Your task to perform on an android device: Go to network settings Image 0: 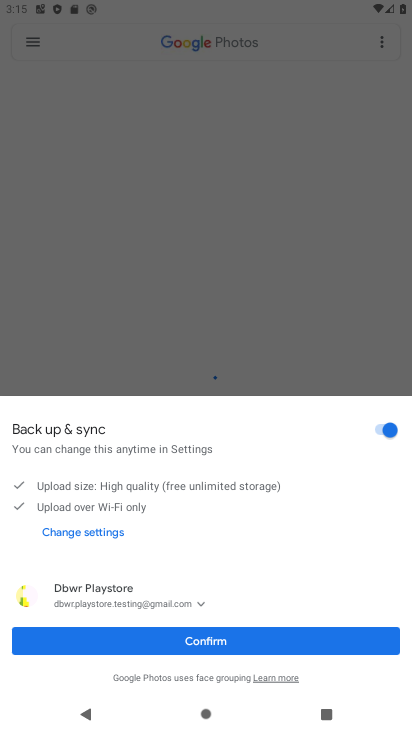
Step 0: click (312, 646)
Your task to perform on an android device: Go to network settings Image 1: 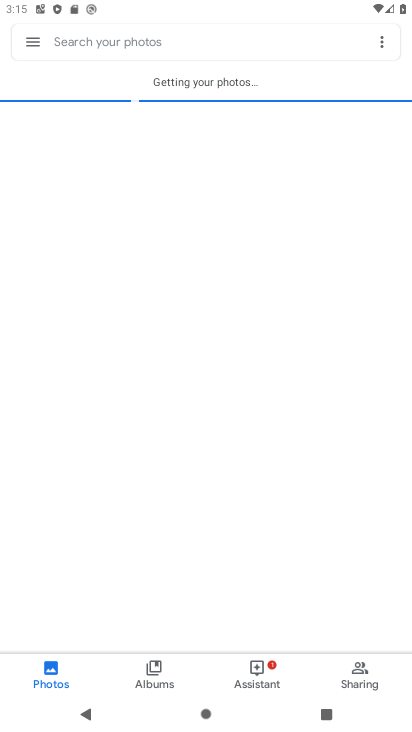
Step 1: press home button
Your task to perform on an android device: Go to network settings Image 2: 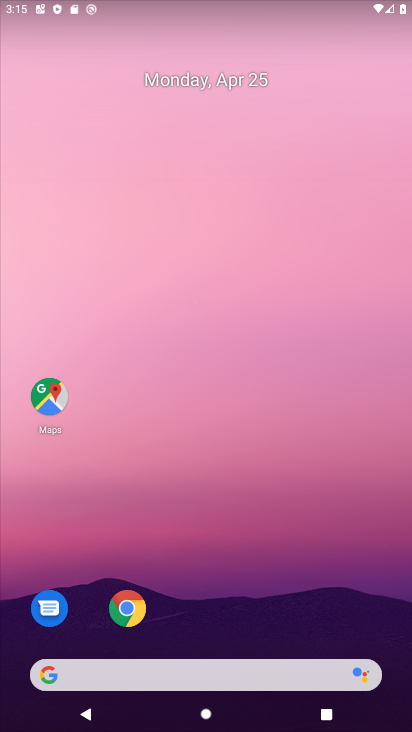
Step 2: drag from (212, 620) to (280, 171)
Your task to perform on an android device: Go to network settings Image 3: 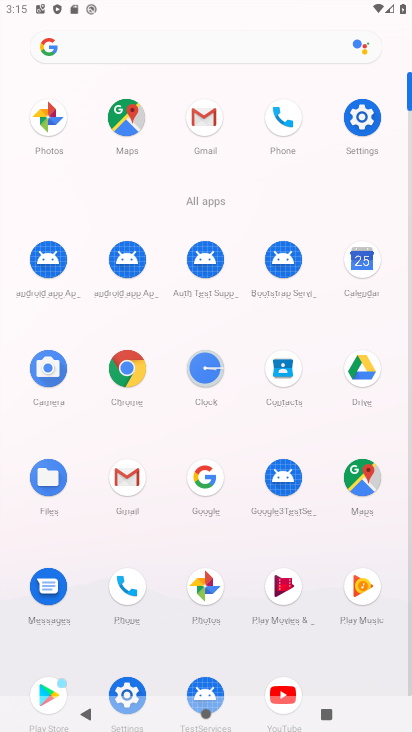
Step 3: click (368, 148)
Your task to perform on an android device: Go to network settings Image 4: 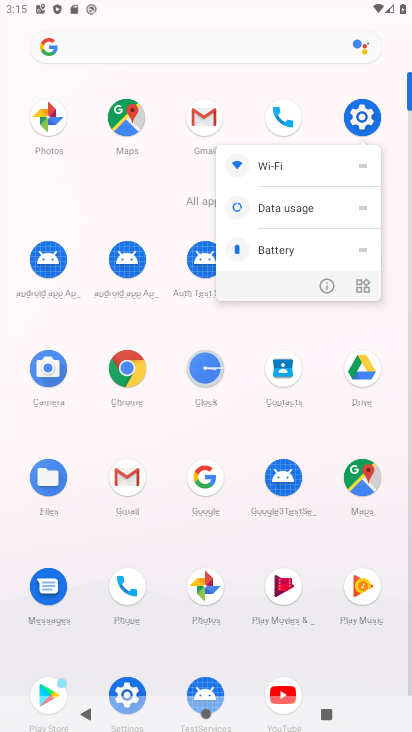
Step 4: click (366, 132)
Your task to perform on an android device: Go to network settings Image 5: 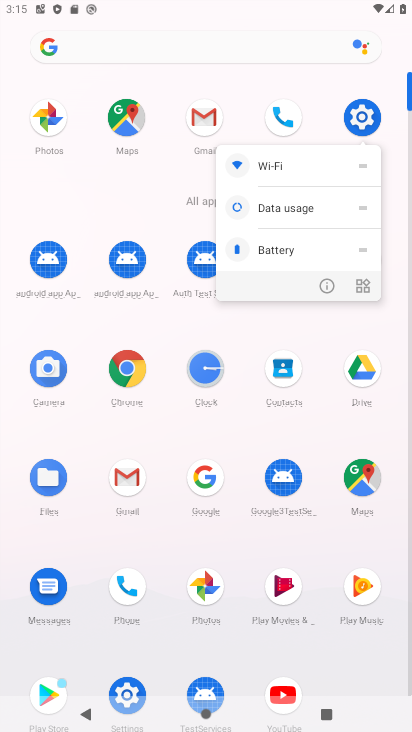
Step 5: click (366, 131)
Your task to perform on an android device: Go to network settings Image 6: 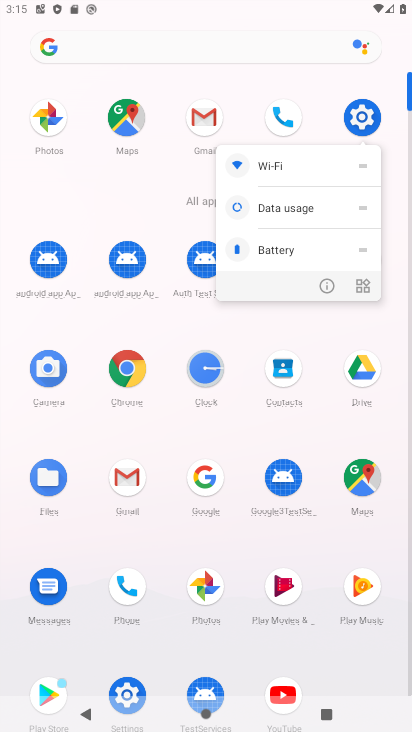
Step 6: click (366, 131)
Your task to perform on an android device: Go to network settings Image 7: 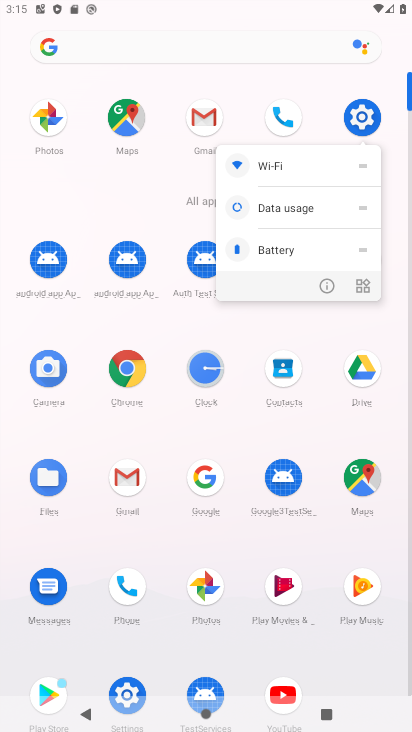
Step 7: click (371, 123)
Your task to perform on an android device: Go to network settings Image 8: 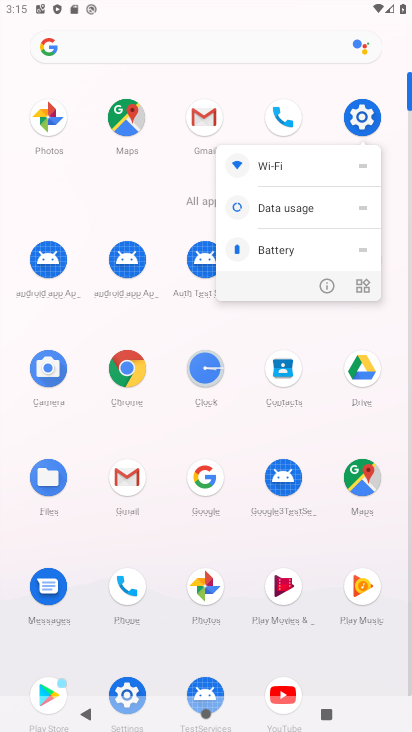
Step 8: click (362, 119)
Your task to perform on an android device: Go to network settings Image 9: 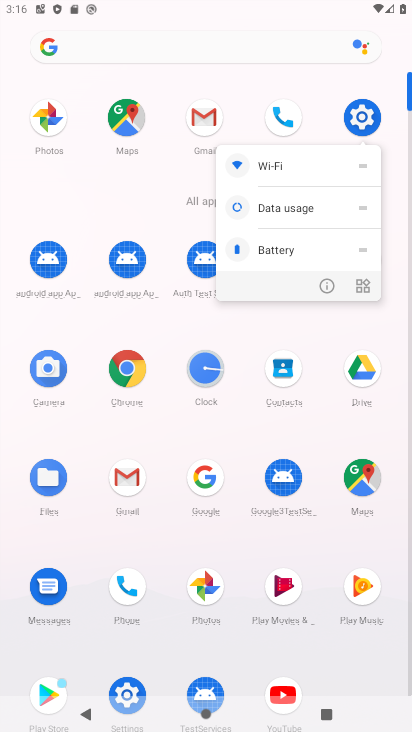
Step 9: click (362, 119)
Your task to perform on an android device: Go to network settings Image 10: 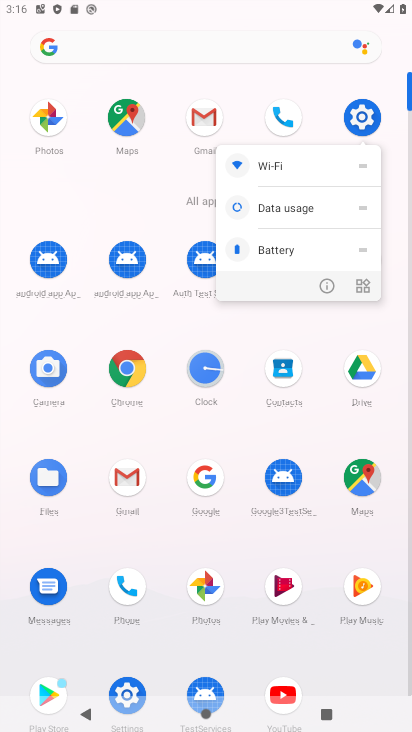
Step 10: click (367, 123)
Your task to perform on an android device: Go to network settings Image 11: 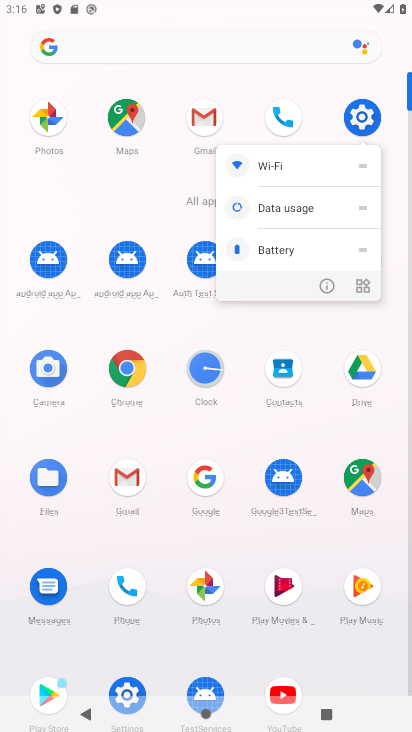
Step 11: click (373, 129)
Your task to perform on an android device: Go to network settings Image 12: 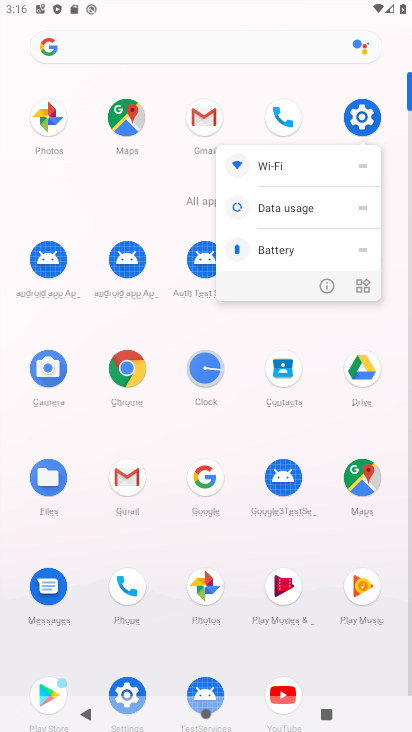
Step 12: click (364, 114)
Your task to perform on an android device: Go to network settings Image 13: 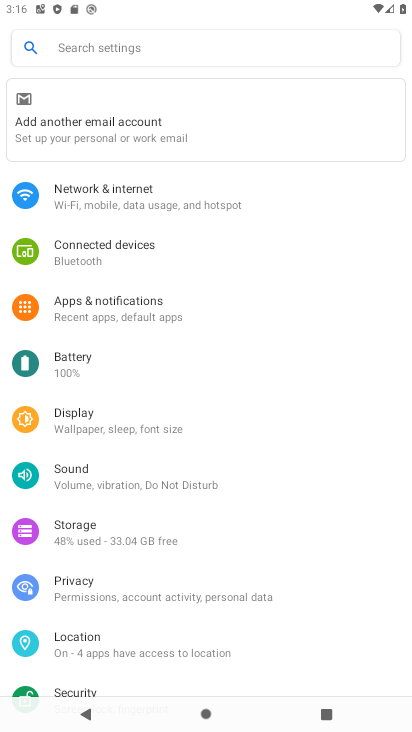
Step 13: click (227, 193)
Your task to perform on an android device: Go to network settings Image 14: 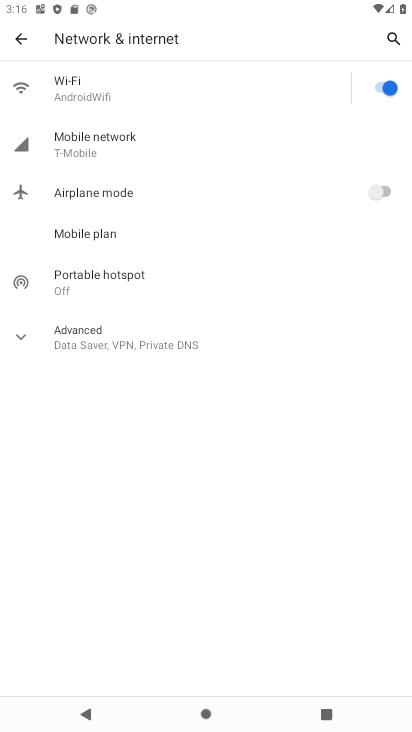
Step 14: click (214, 154)
Your task to perform on an android device: Go to network settings Image 15: 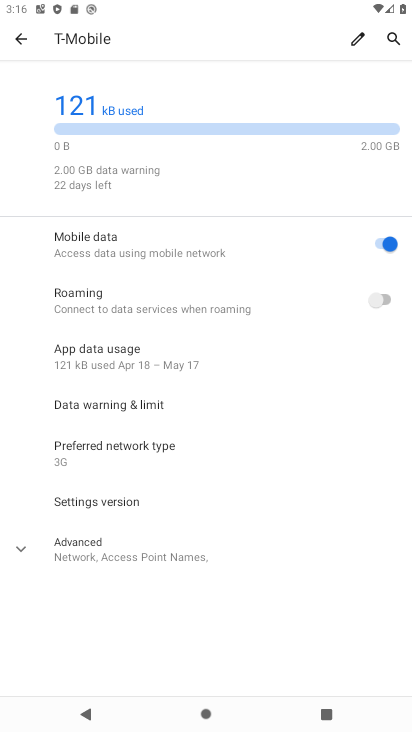
Step 15: task complete